Your task to perform on an android device: What is the news today? Image 0: 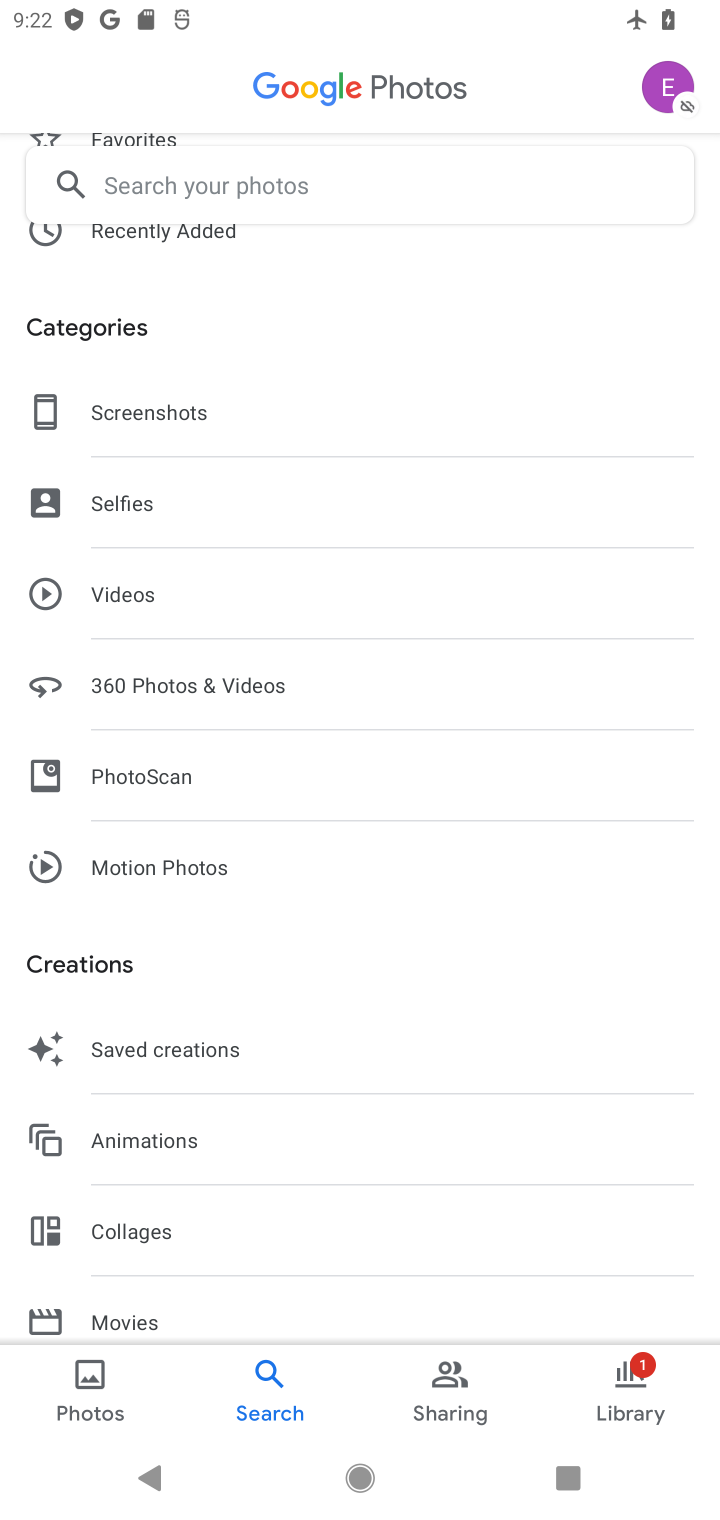
Step 0: press home button
Your task to perform on an android device: What is the news today? Image 1: 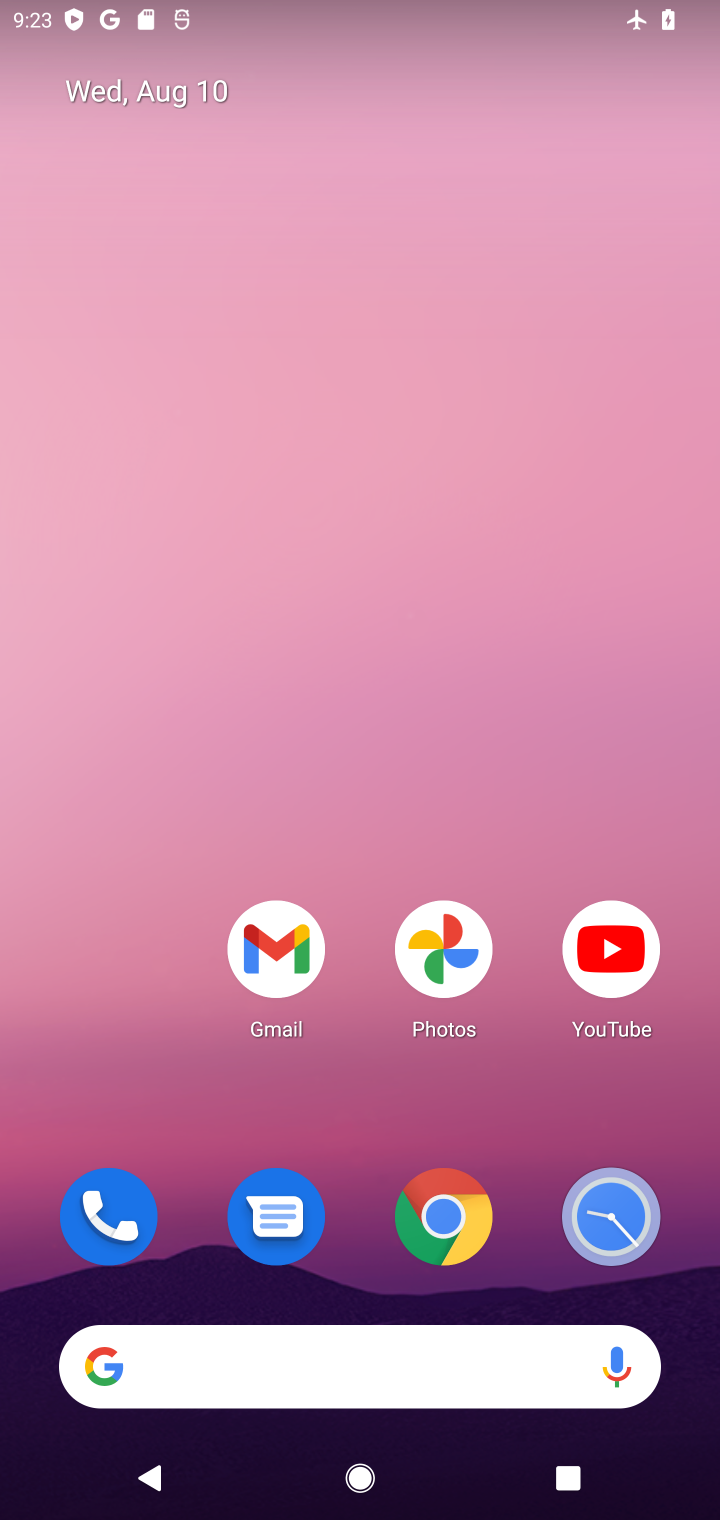
Step 1: click (341, 1388)
Your task to perform on an android device: What is the news today? Image 2: 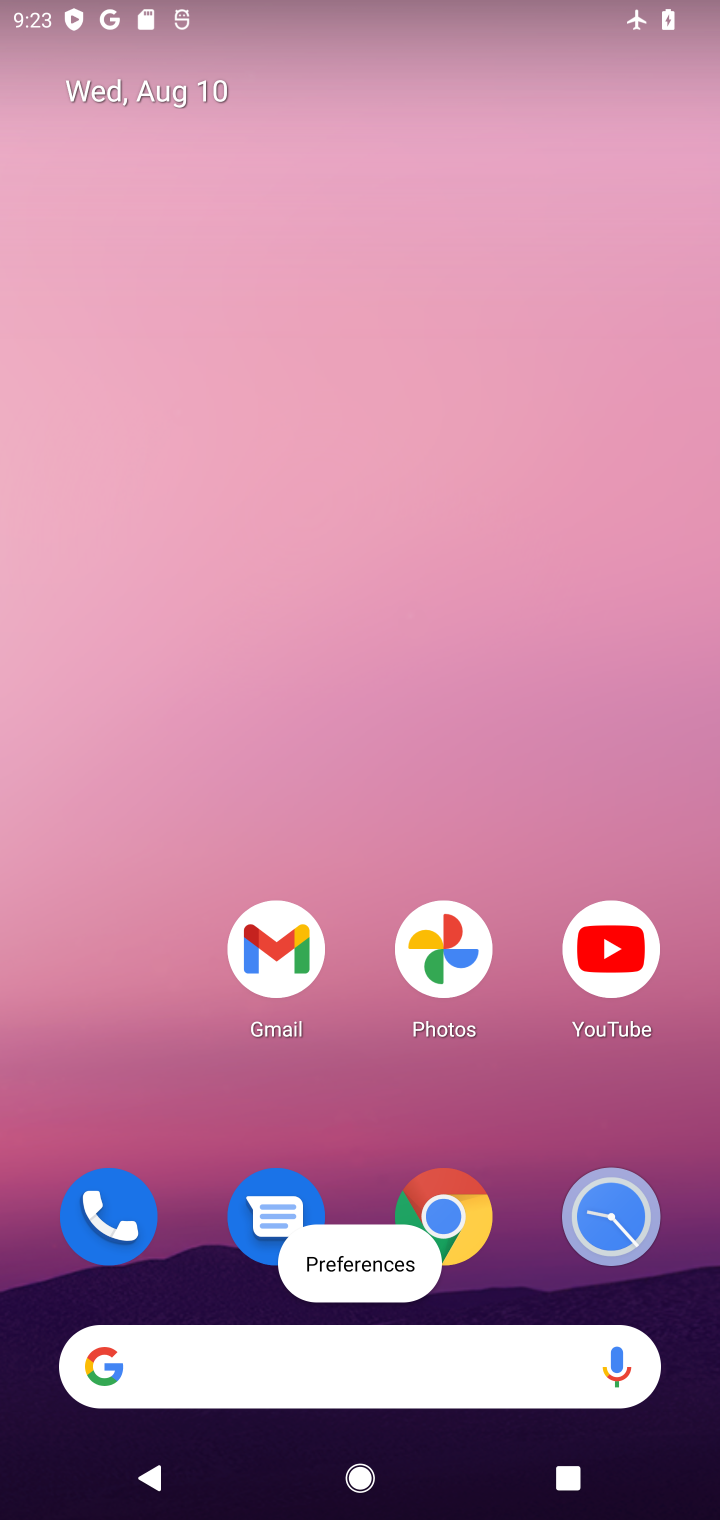
Step 2: click (379, 1367)
Your task to perform on an android device: What is the news today? Image 3: 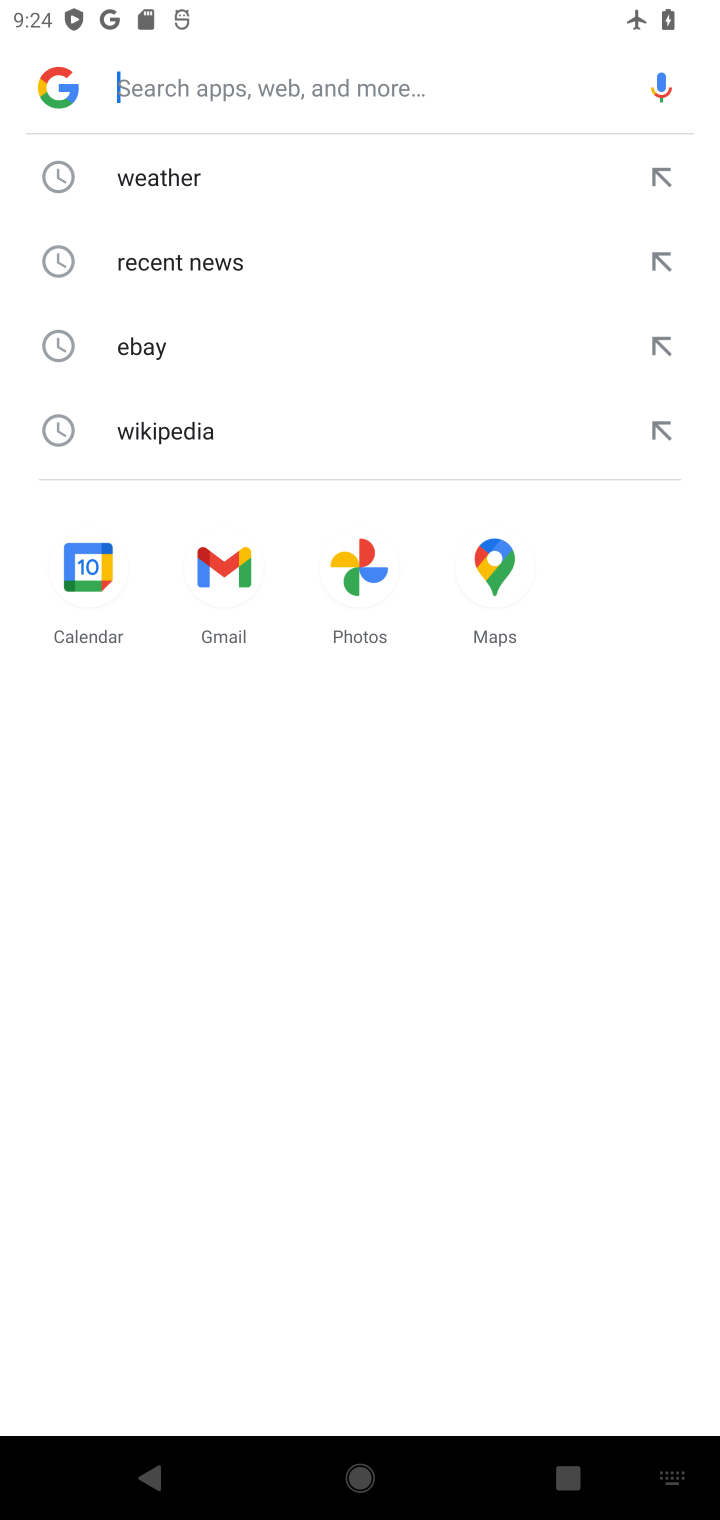
Step 3: click (245, 253)
Your task to perform on an android device: What is the news today? Image 4: 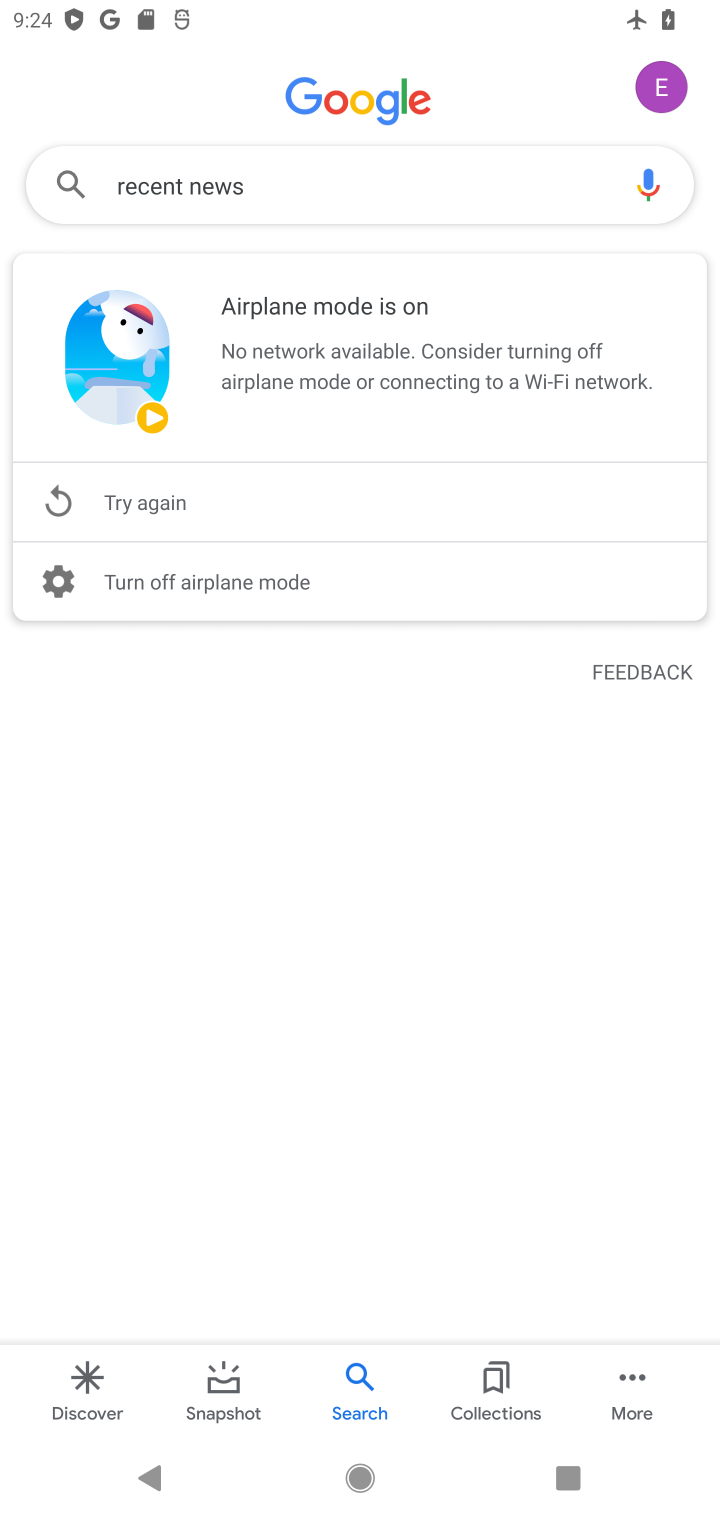
Step 4: task complete